Your task to perform on an android device: toggle javascript in the chrome app Image 0: 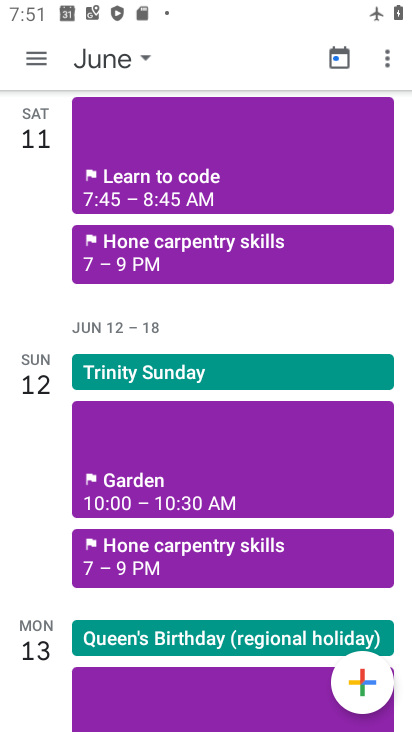
Step 0: press home button
Your task to perform on an android device: toggle javascript in the chrome app Image 1: 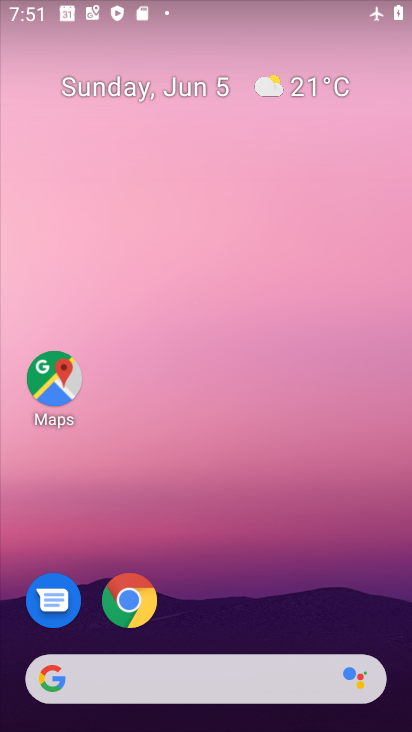
Step 1: click (126, 601)
Your task to perform on an android device: toggle javascript in the chrome app Image 2: 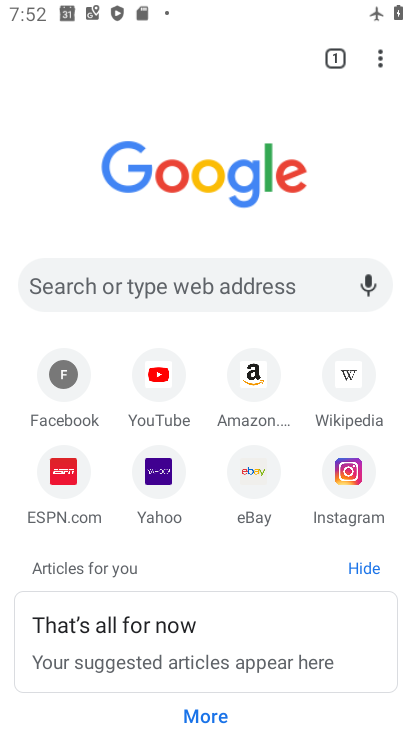
Step 2: click (376, 59)
Your task to perform on an android device: toggle javascript in the chrome app Image 3: 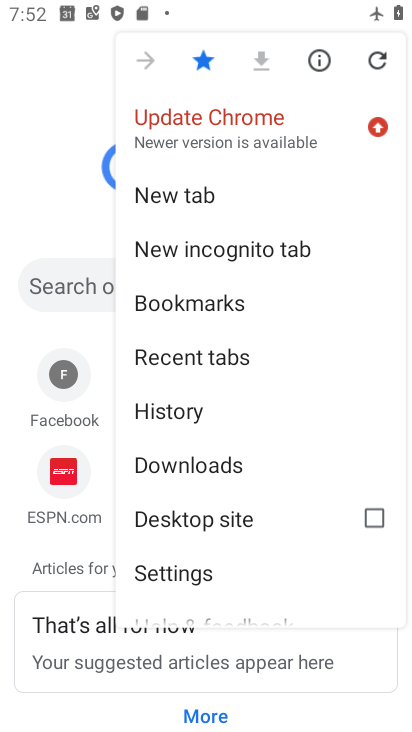
Step 3: click (232, 567)
Your task to perform on an android device: toggle javascript in the chrome app Image 4: 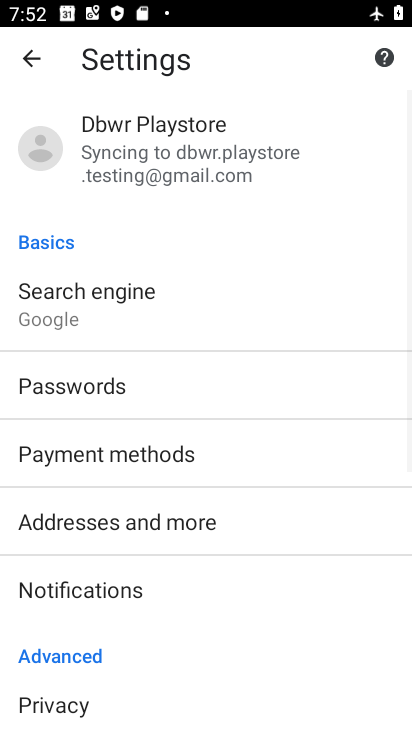
Step 4: drag from (233, 562) to (252, 240)
Your task to perform on an android device: toggle javascript in the chrome app Image 5: 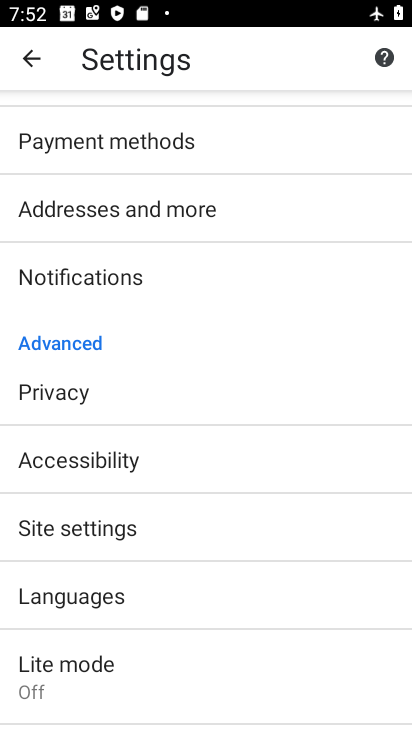
Step 5: click (193, 526)
Your task to perform on an android device: toggle javascript in the chrome app Image 6: 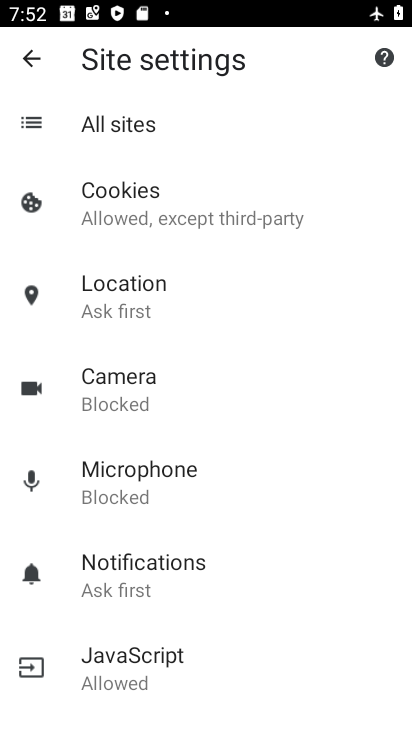
Step 6: click (186, 667)
Your task to perform on an android device: toggle javascript in the chrome app Image 7: 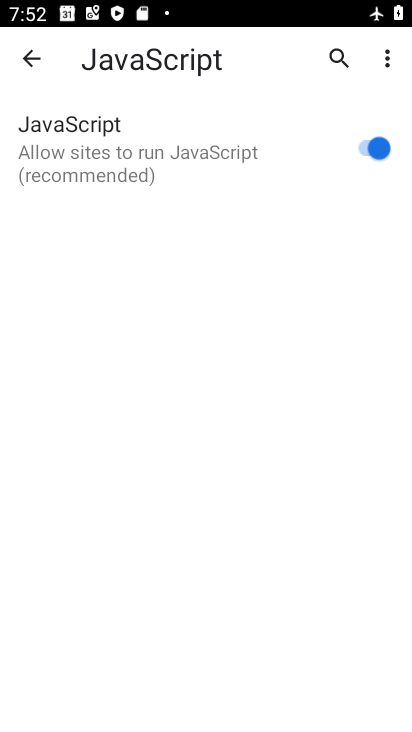
Step 7: click (374, 151)
Your task to perform on an android device: toggle javascript in the chrome app Image 8: 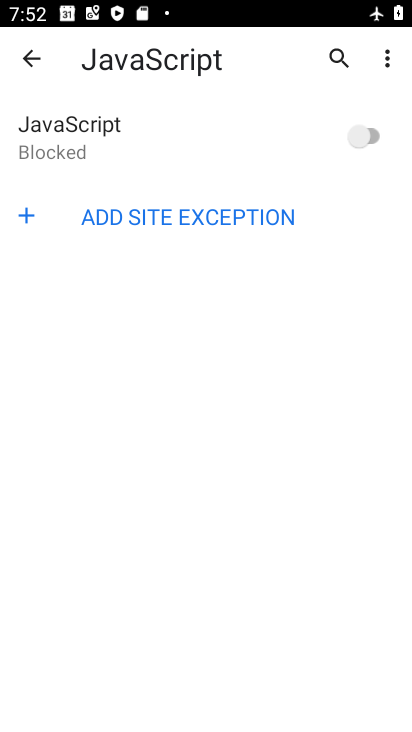
Step 8: task complete